Your task to perform on an android device: check google app version Image 0: 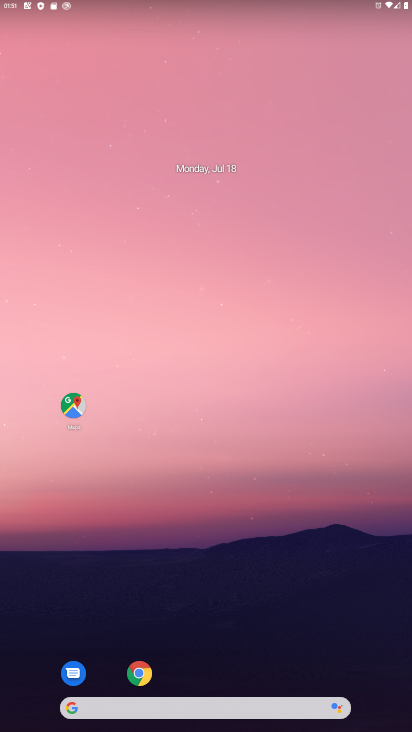
Step 0: click (131, 676)
Your task to perform on an android device: check google app version Image 1: 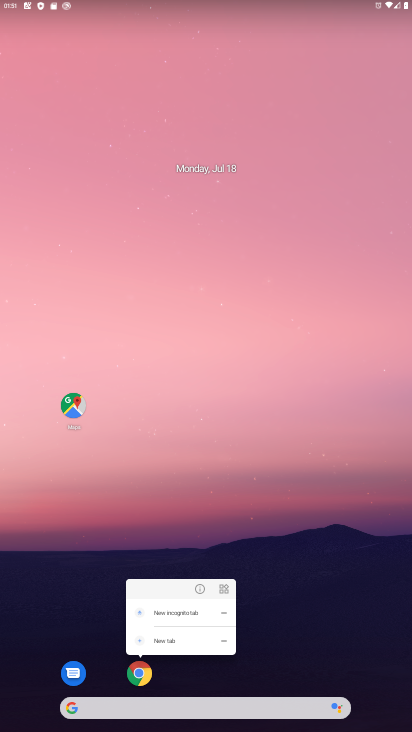
Step 1: click (202, 584)
Your task to perform on an android device: check google app version Image 2: 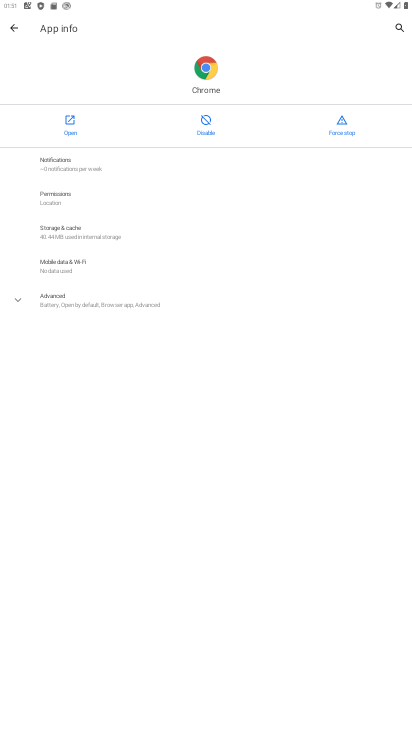
Step 2: task complete